Your task to perform on an android device: Open maps Image 0: 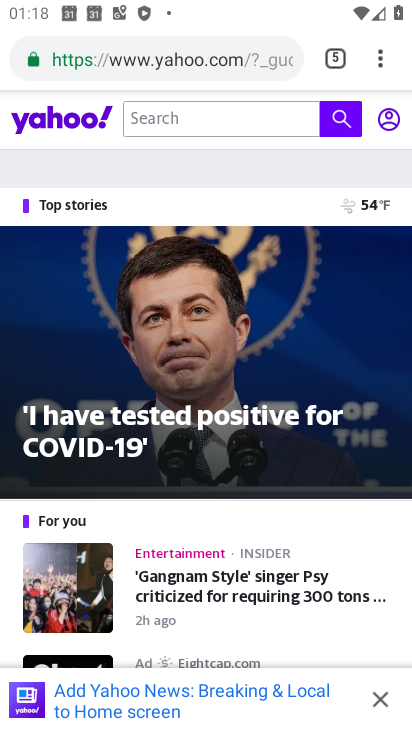
Step 0: press home button
Your task to perform on an android device: Open maps Image 1: 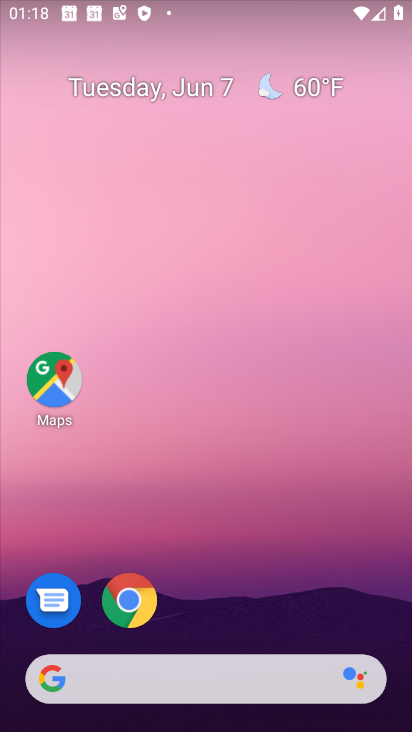
Step 1: drag from (219, 646) to (211, 134)
Your task to perform on an android device: Open maps Image 2: 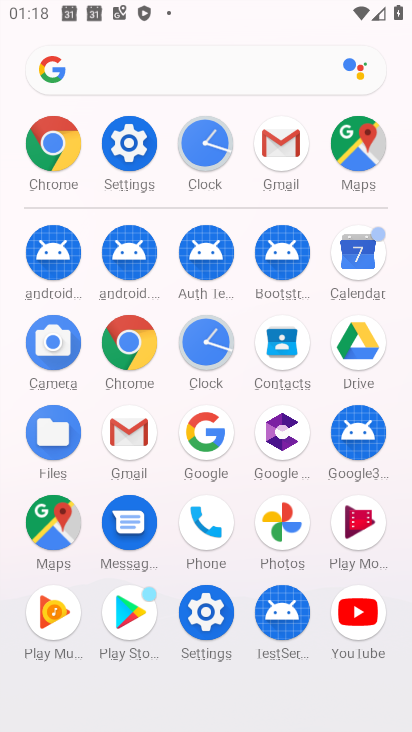
Step 2: click (53, 529)
Your task to perform on an android device: Open maps Image 3: 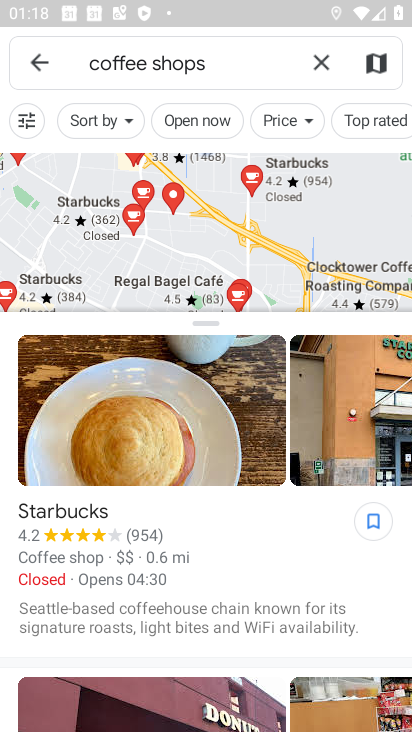
Step 3: task complete